Your task to perform on an android device: move a message to another label in the gmail app Image 0: 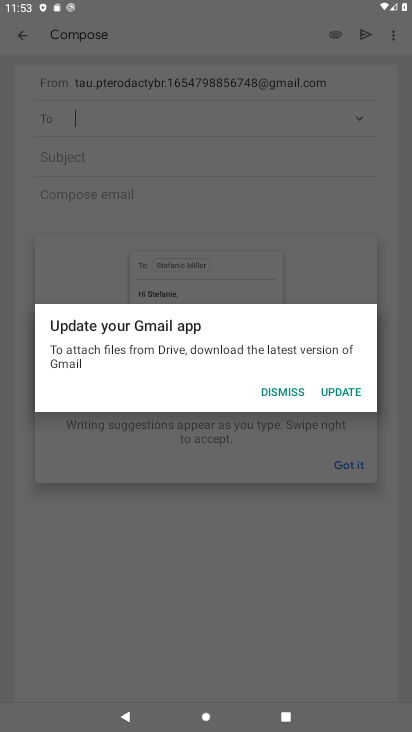
Step 0: press home button
Your task to perform on an android device: move a message to another label in the gmail app Image 1: 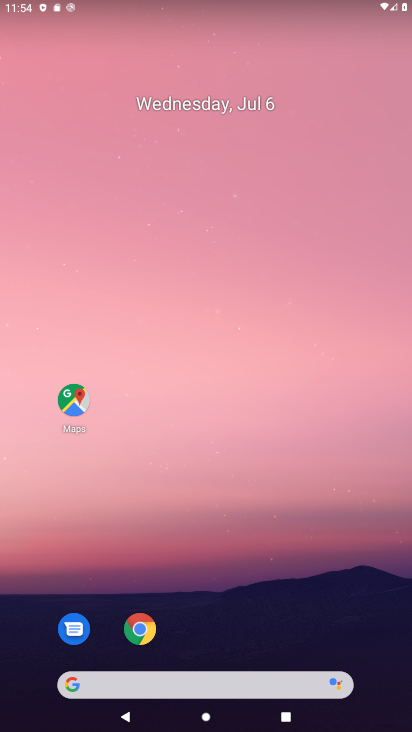
Step 1: drag from (248, 616) to (190, 51)
Your task to perform on an android device: move a message to another label in the gmail app Image 2: 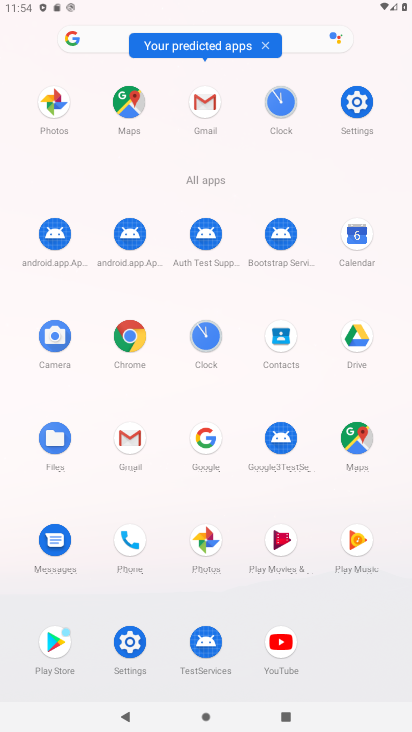
Step 2: click (209, 100)
Your task to perform on an android device: move a message to another label in the gmail app Image 3: 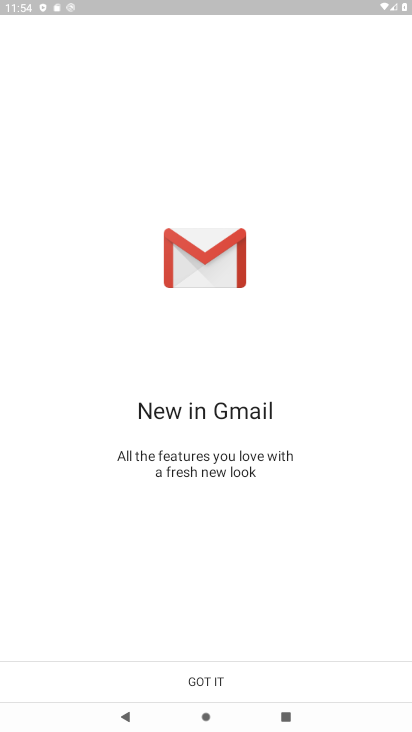
Step 3: click (231, 683)
Your task to perform on an android device: move a message to another label in the gmail app Image 4: 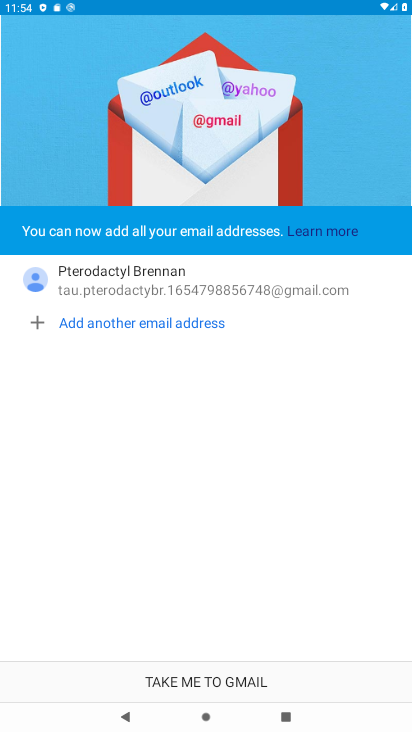
Step 4: click (236, 684)
Your task to perform on an android device: move a message to another label in the gmail app Image 5: 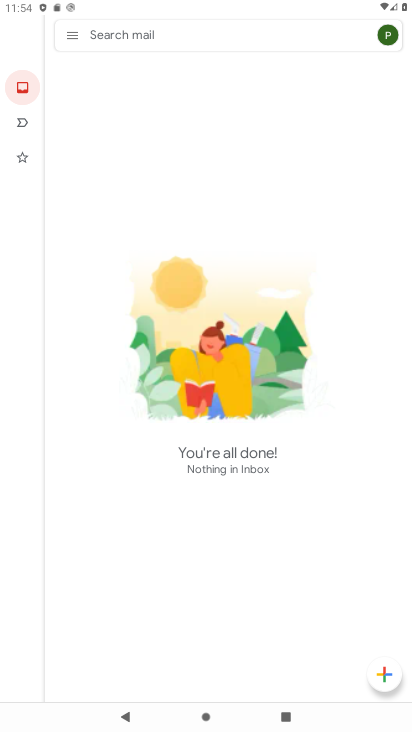
Step 5: click (75, 36)
Your task to perform on an android device: move a message to another label in the gmail app Image 6: 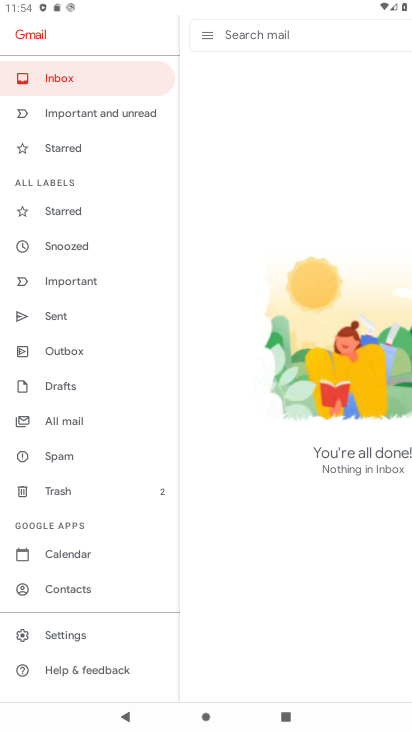
Step 6: click (150, 420)
Your task to perform on an android device: move a message to another label in the gmail app Image 7: 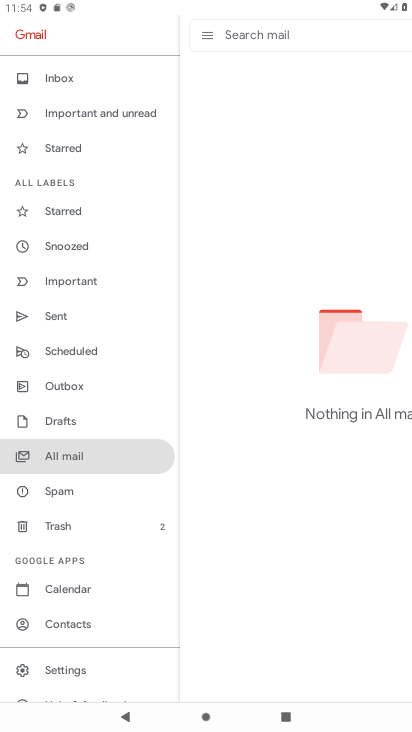
Step 7: task complete